Your task to perform on an android device: Open Android settings Image 0: 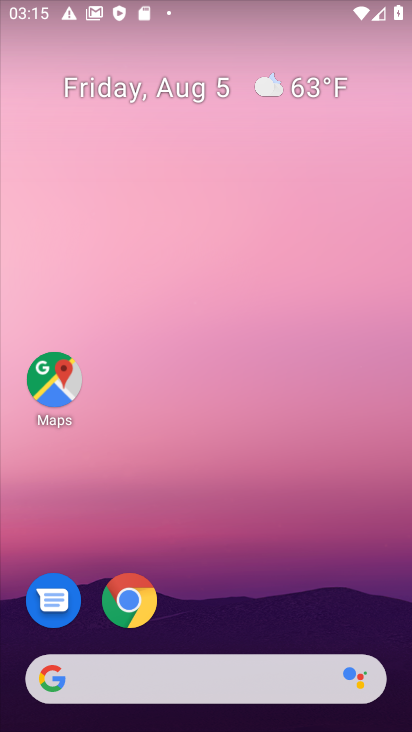
Step 0: drag from (204, 673) to (270, 124)
Your task to perform on an android device: Open Android settings Image 1: 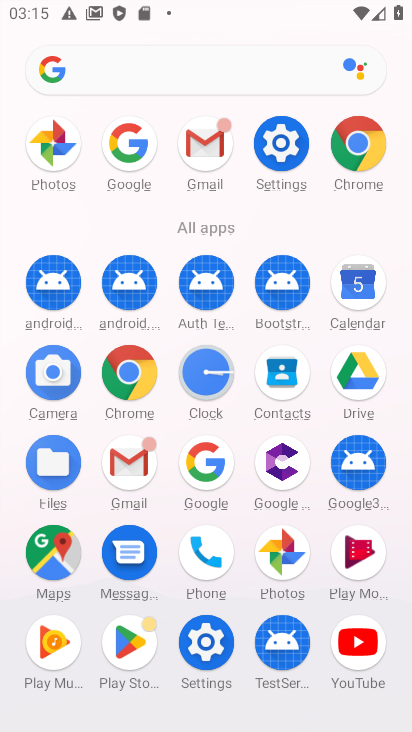
Step 1: click (281, 141)
Your task to perform on an android device: Open Android settings Image 2: 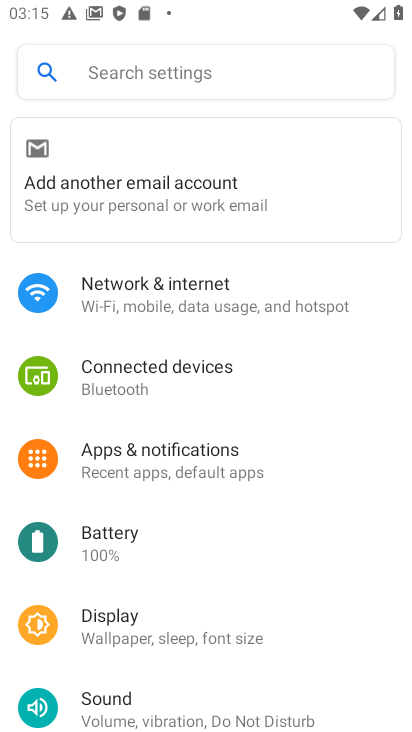
Step 2: task complete